Your task to perform on an android device: see sites visited before in the chrome app Image 0: 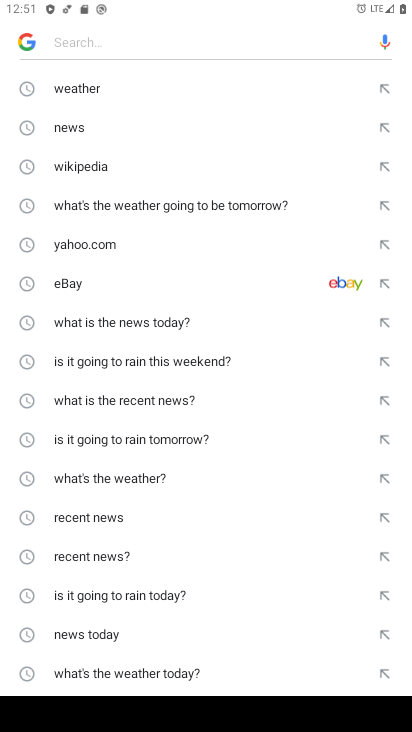
Step 0: press home button
Your task to perform on an android device: see sites visited before in the chrome app Image 1: 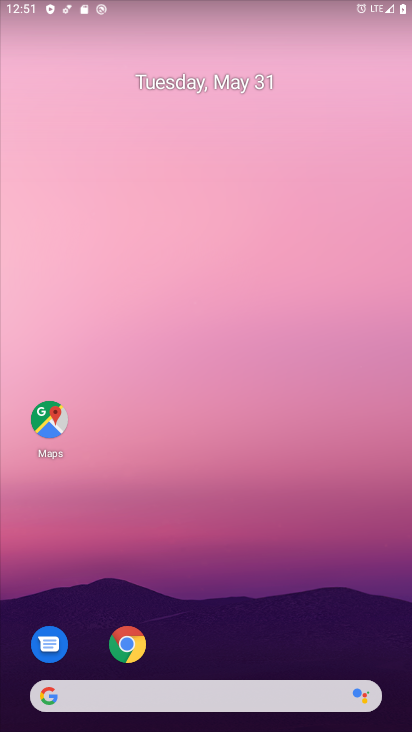
Step 1: click (129, 644)
Your task to perform on an android device: see sites visited before in the chrome app Image 2: 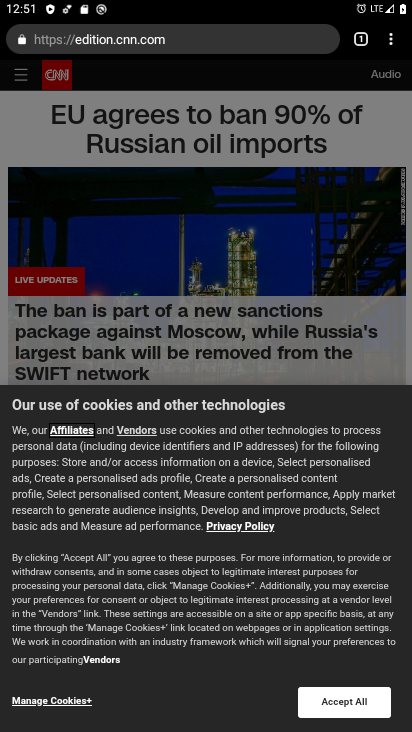
Step 2: click (390, 40)
Your task to perform on an android device: see sites visited before in the chrome app Image 3: 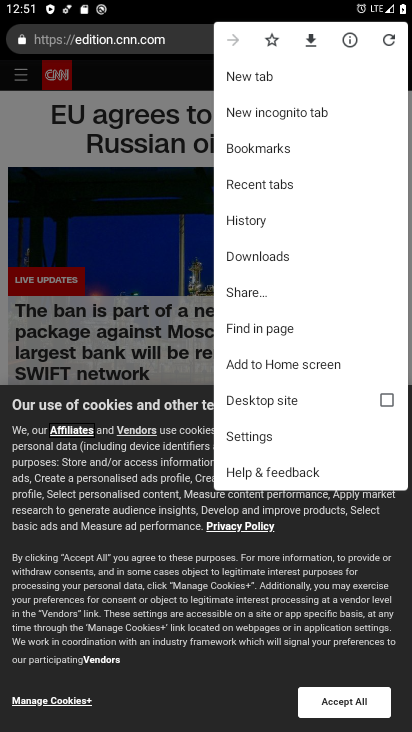
Step 3: click (262, 189)
Your task to perform on an android device: see sites visited before in the chrome app Image 4: 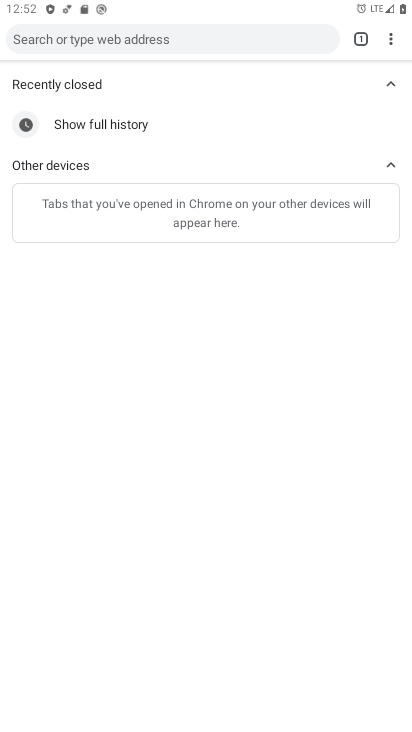
Step 4: task complete